Your task to perform on an android device: Open the calendar app, open the side menu, and click the "Day" option Image 0: 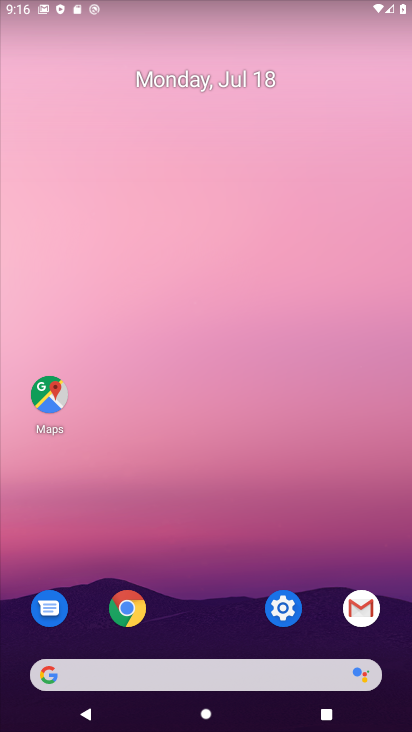
Step 0: drag from (330, 103) to (326, 58)
Your task to perform on an android device: Open the calendar app, open the side menu, and click the "Day" option Image 1: 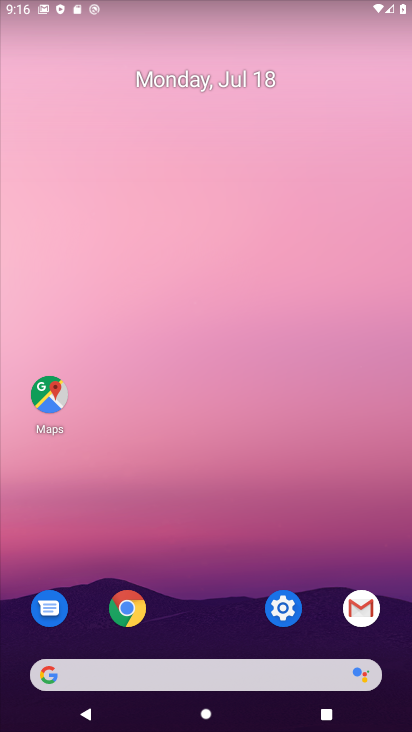
Step 1: drag from (280, 666) to (314, 3)
Your task to perform on an android device: Open the calendar app, open the side menu, and click the "Day" option Image 2: 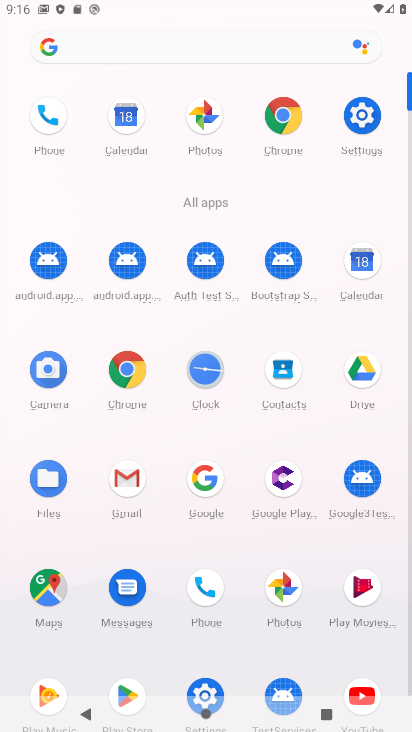
Step 2: click (357, 268)
Your task to perform on an android device: Open the calendar app, open the side menu, and click the "Day" option Image 3: 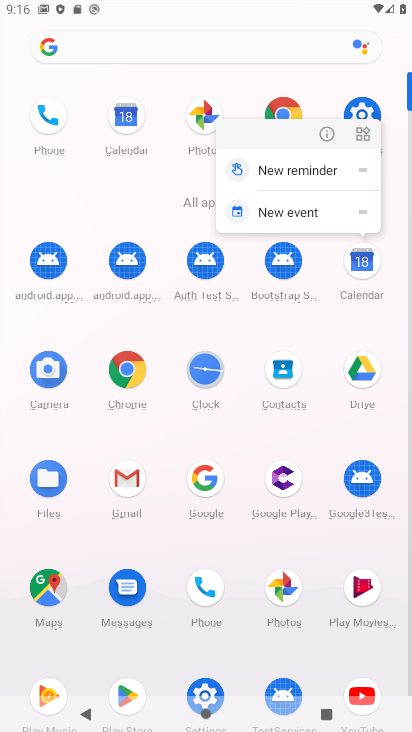
Step 3: click (358, 266)
Your task to perform on an android device: Open the calendar app, open the side menu, and click the "Day" option Image 4: 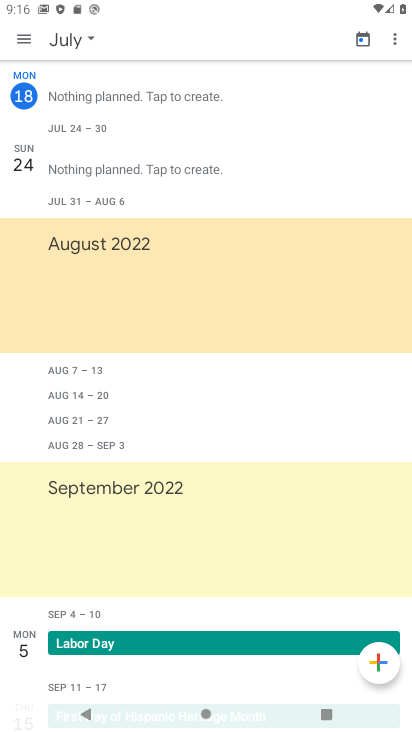
Step 4: click (37, 40)
Your task to perform on an android device: Open the calendar app, open the side menu, and click the "Day" option Image 5: 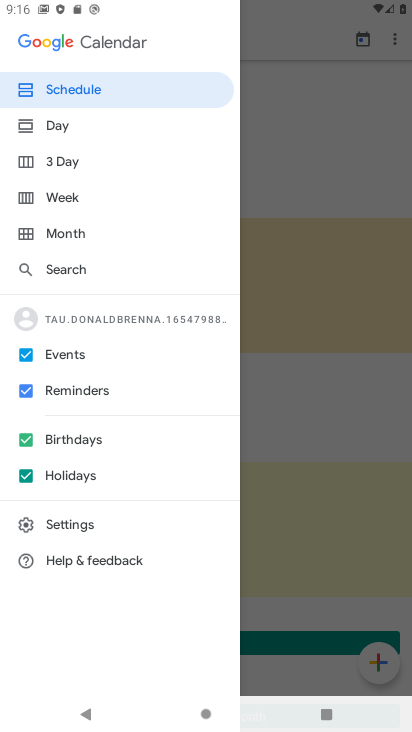
Step 5: click (81, 127)
Your task to perform on an android device: Open the calendar app, open the side menu, and click the "Day" option Image 6: 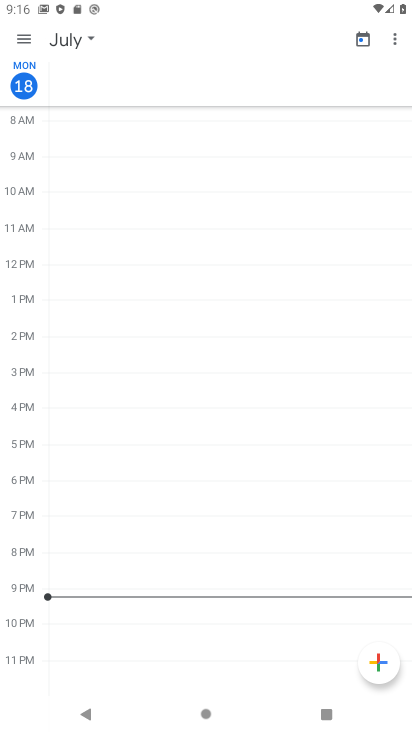
Step 6: task complete